Your task to perform on an android device: see creations saved in the google photos Image 0: 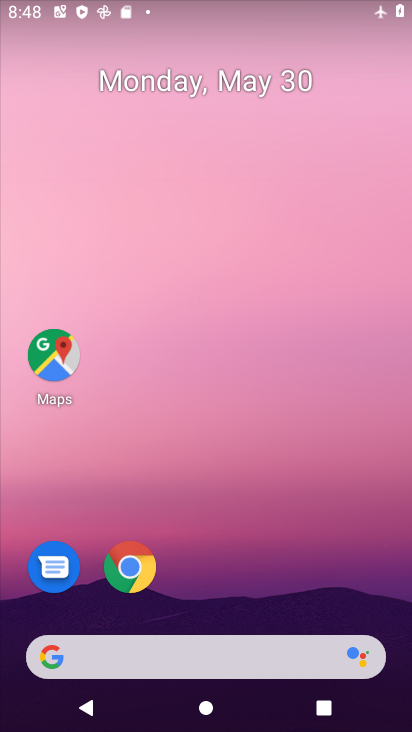
Step 0: drag from (312, 603) to (281, 199)
Your task to perform on an android device: see creations saved in the google photos Image 1: 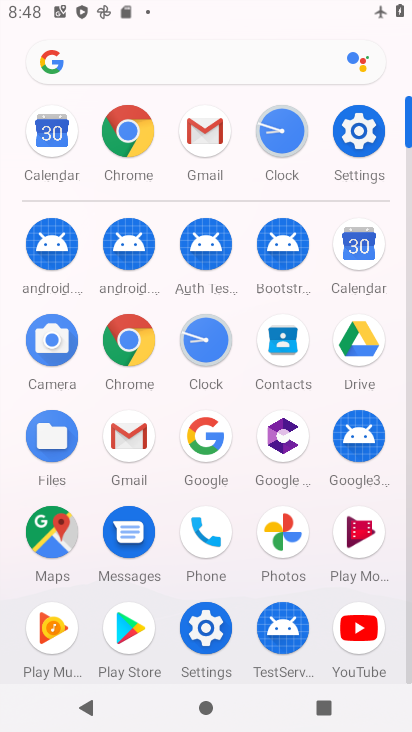
Step 1: click (265, 525)
Your task to perform on an android device: see creations saved in the google photos Image 2: 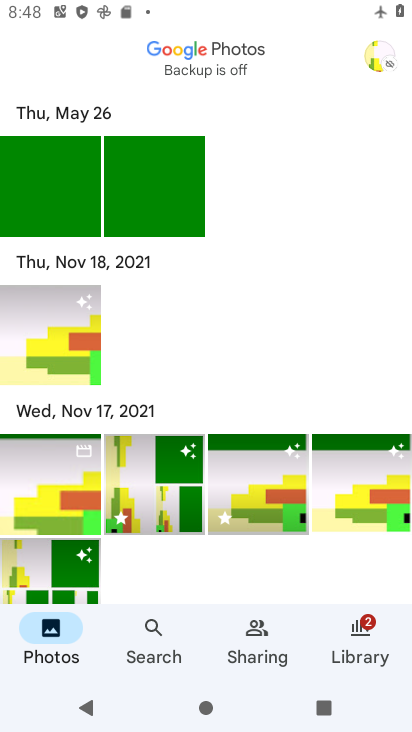
Step 2: task complete